Your task to perform on an android device: Open maps Image 0: 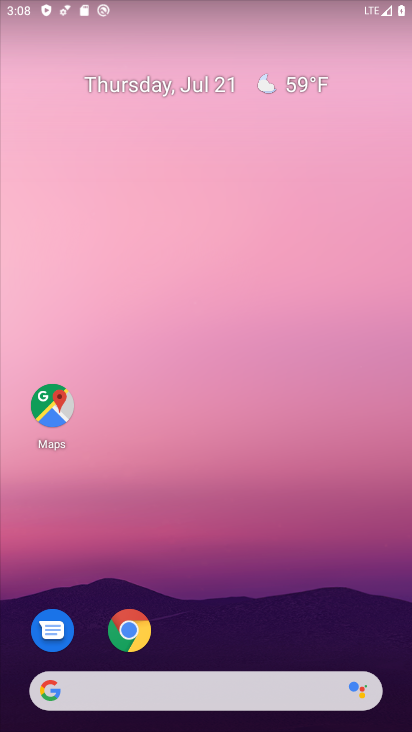
Step 0: drag from (221, 363) to (189, 200)
Your task to perform on an android device: Open maps Image 1: 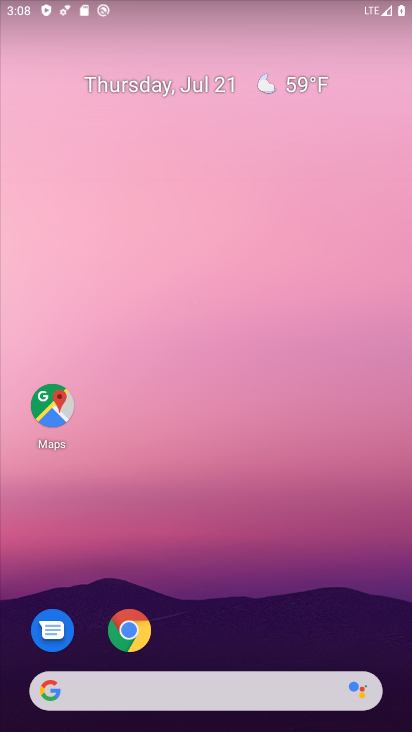
Step 1: drag from (206, 594) to (154, 158)
Your task to perform on an android device: Open maps Image 2: 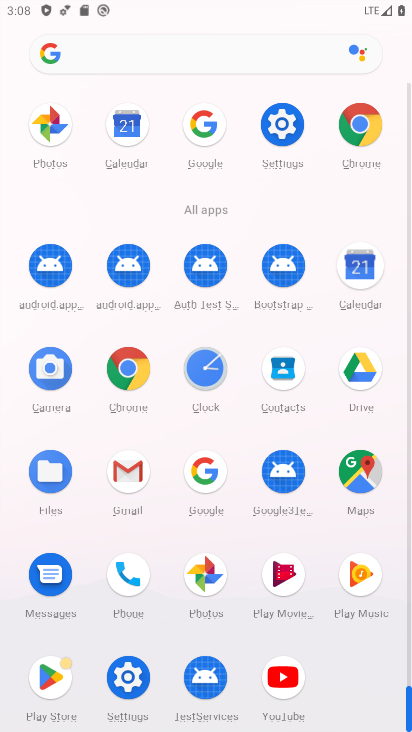
Step 2: click (362, 474)
Your task to perform on an android device: Open maps Image 3: 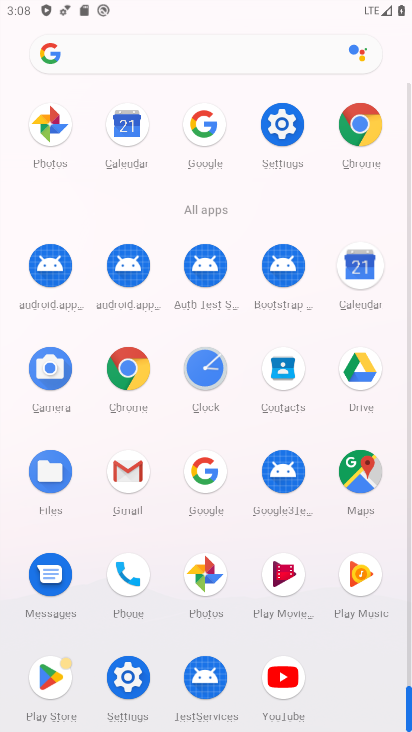
Step 3: click (362, 474)
Your task to perform on an android device: Open maps Image 4: 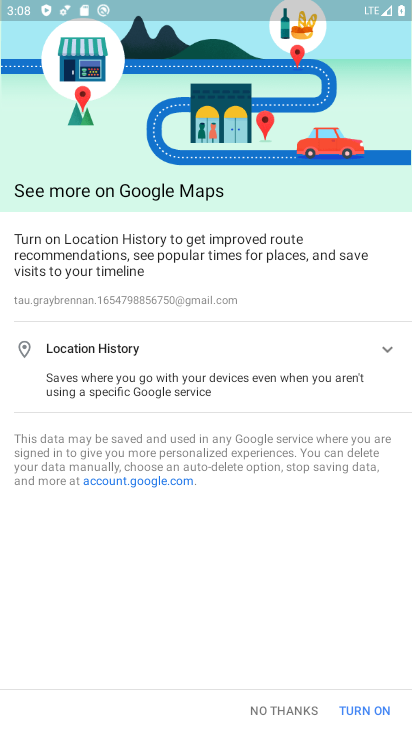
Step 4: task complete